Your task to perform on an android device: Open Wikipedia Image 0: 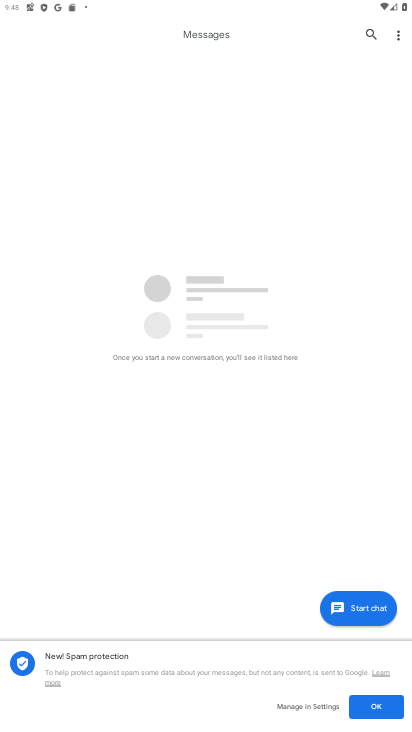
Step 0: press home button
Your task to perform on an android device: Open Wikipedia Image 1: 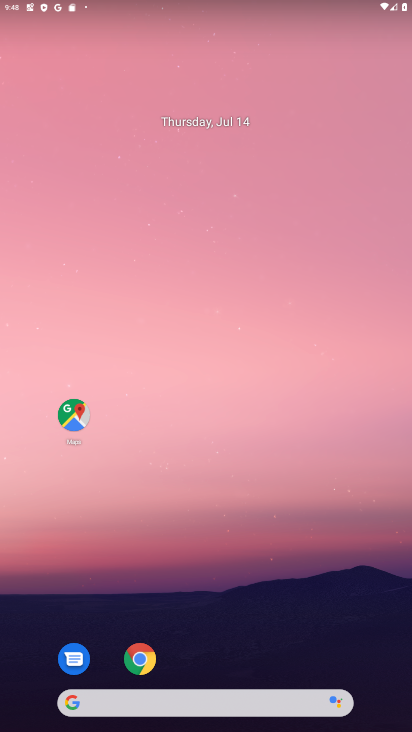
Step 1: drag from (216, 617) to (192, 78)
Your task to perform on an android device: Open Wikipedia Image 2: 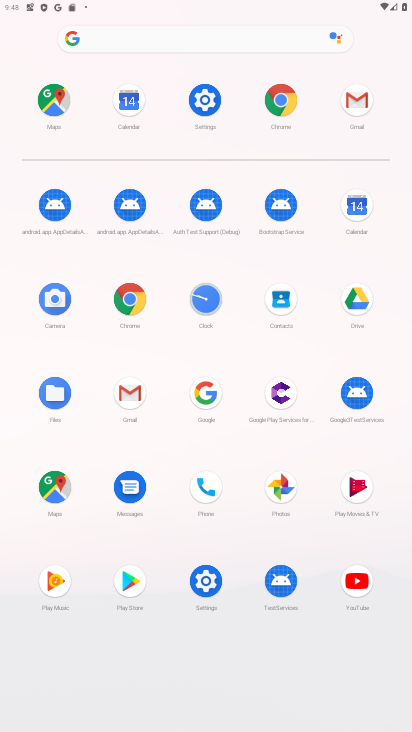
Step 2: click (126, 297)
Your task to perform on an android device: Open Wikipedia Image 3: 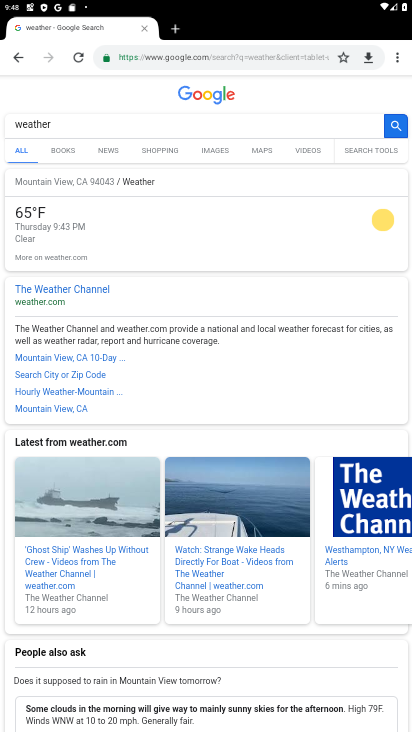
Step 3: click (207, 48)
Your task to perform on an android device: Open Wikipedia Image 4: 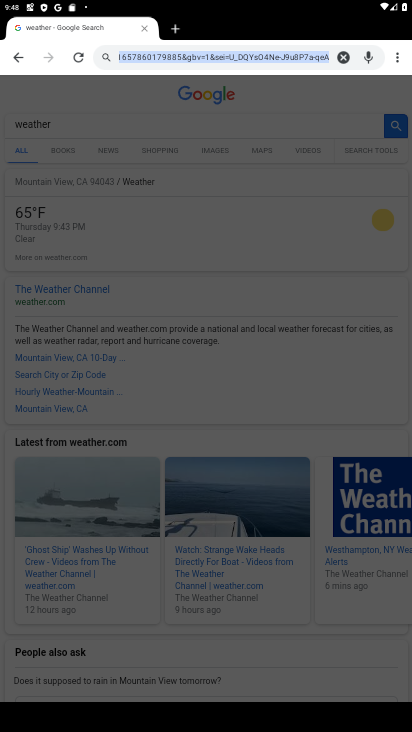
Step 4: type "wikipedia"
Your task to perform on an android device: Open Wikipedia Image 5: 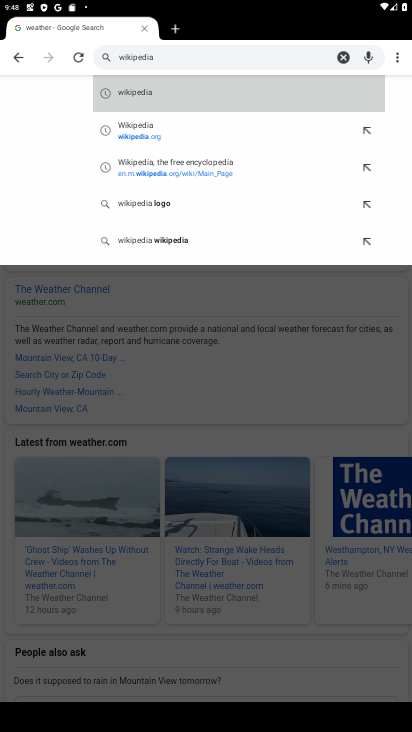
Step 5: click (143, 136)
Your task to perform on an android device: Open Wikipedia Image 6: 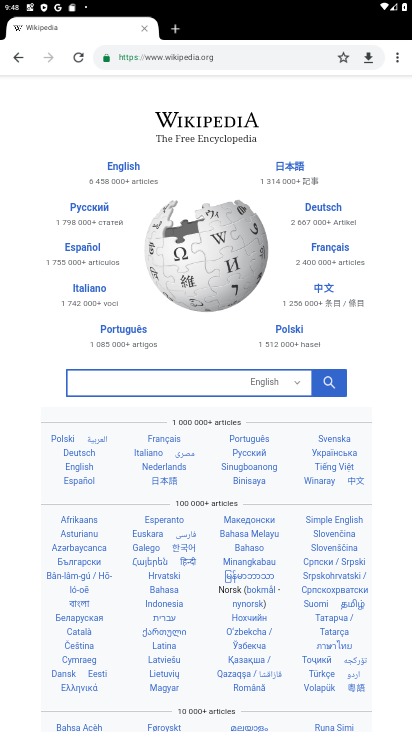
Step 6: task complete